Your task to perform on an android device: Show me popular videos on Youtube Image 0: 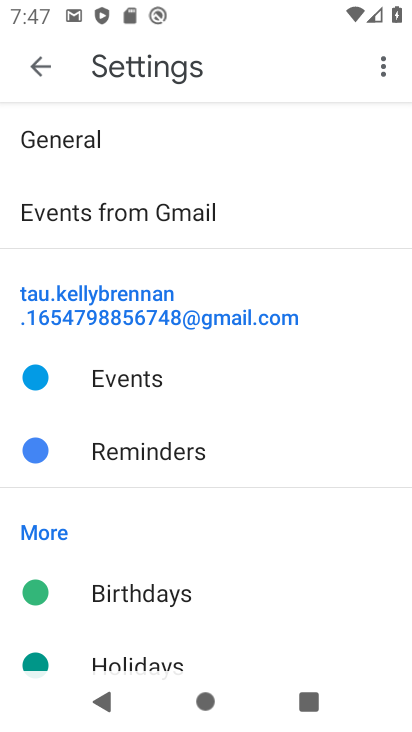
Step 0: press home button
Your task to perform on an android device: Show me popular videos on Youtube Image 1: 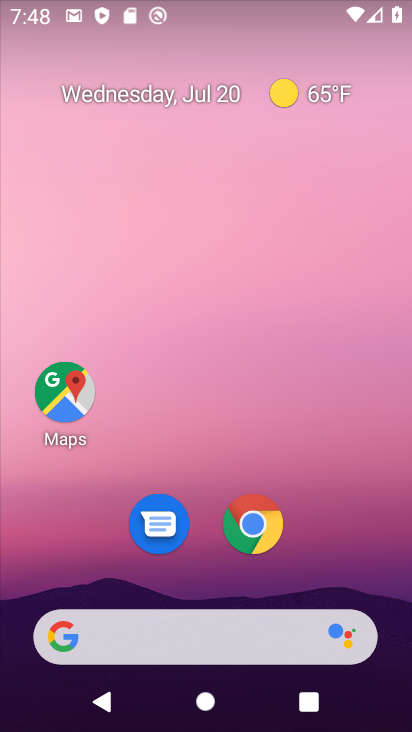
Step 1: drag from (309, 564) to (285, 79)
Your task to perform on an android device: Show me popular videos on Youtube Image 2: 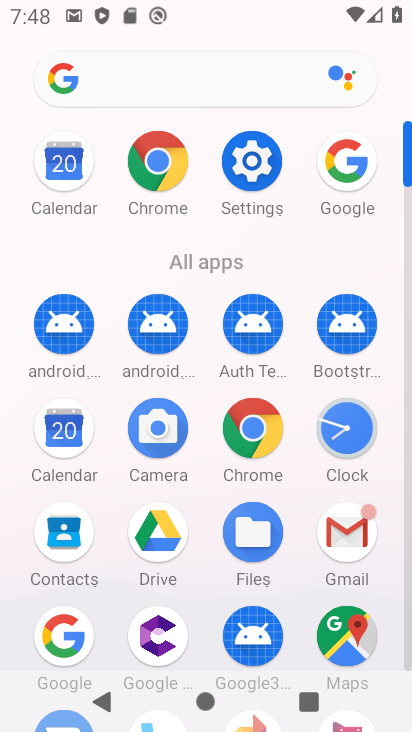
Step 2: drag from (216, 568) to (237, 126)
Your task to perform on an android device: Show me popular videos on Youtube Image 3: 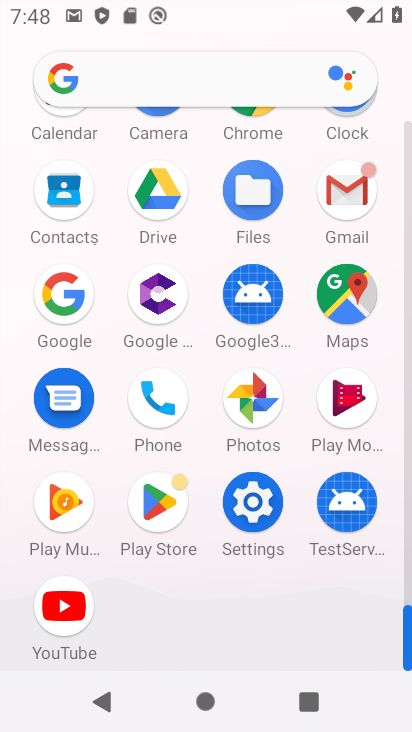
Step 3: click (71, 605)
Your task to perform on an android device: Show me popular videos on Youtube Image 4: 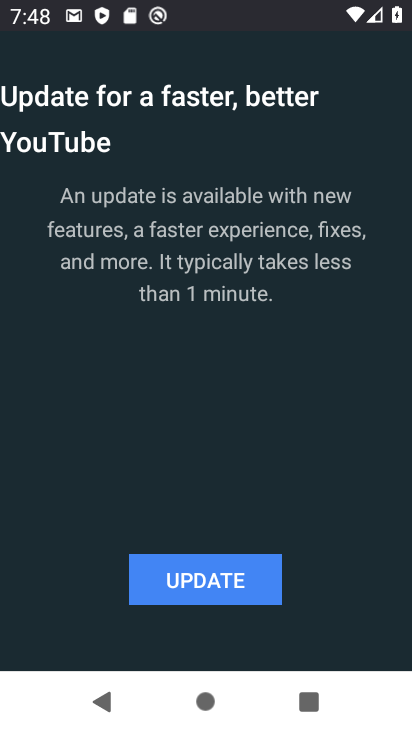
Step 4: click (261, 592)
Your task to perform on an android device: Show me popular videos on Youtube Image 5: 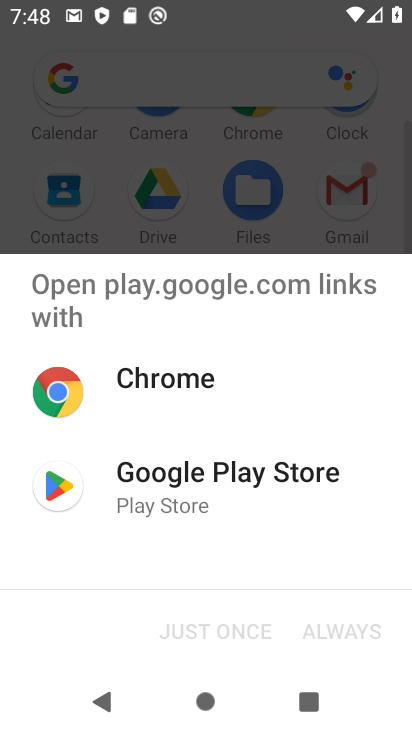
Step 5: click (132, 487)
Your task to perform on an android device: Show me popular videos on Youtube Image 6: 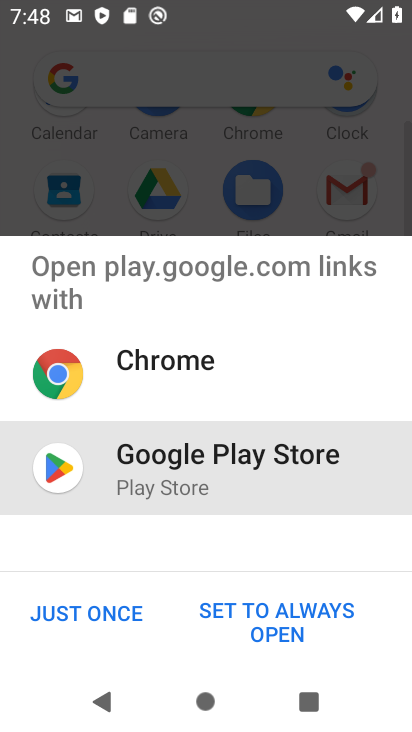
Step 6: click (84, 605)
Your task to perform on an android device: Show me popular videos on Youtube Image 7: 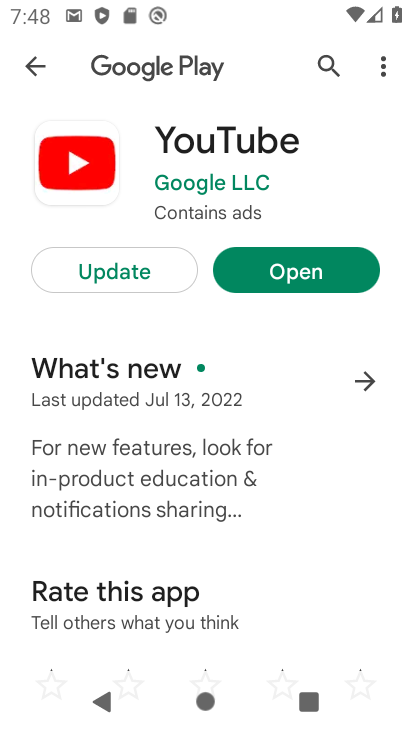
Step 7: click (178, 278)
Your task to perform on an android device: Show me popular videos on Youtube Image 8: 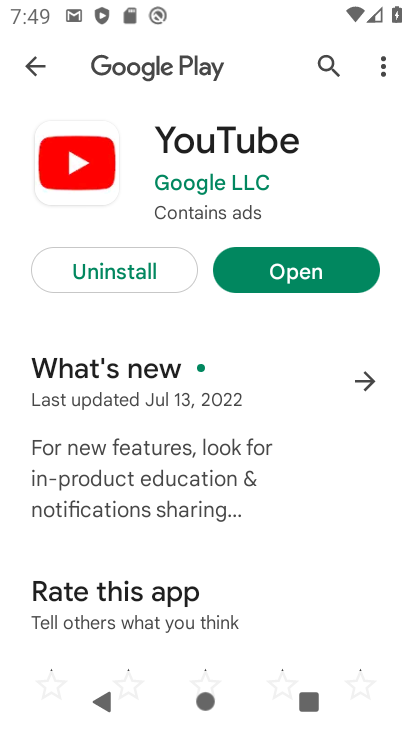
Step 8: click (301, 274)
Your task to perform on an android device: Show me popular videos on Youtube Image 9: 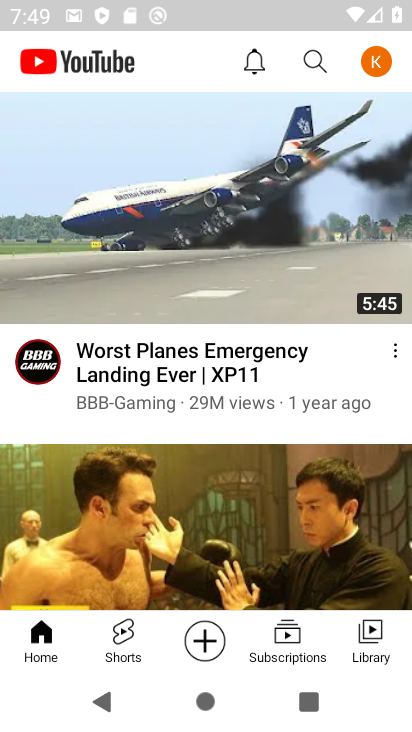
Step 9: click (305, 60)
Your task to perform on an android device: Show me popular videos on Youtube Image 10: 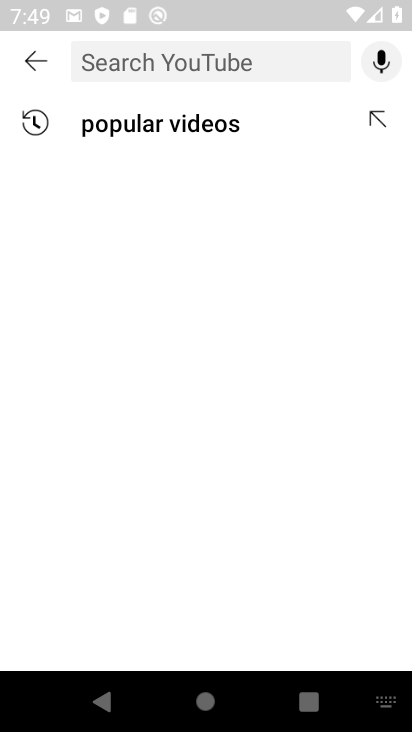
Step 10: click (212, 121)
Your task to perform on an android device: Show me popular videos on Youtube Image 11: 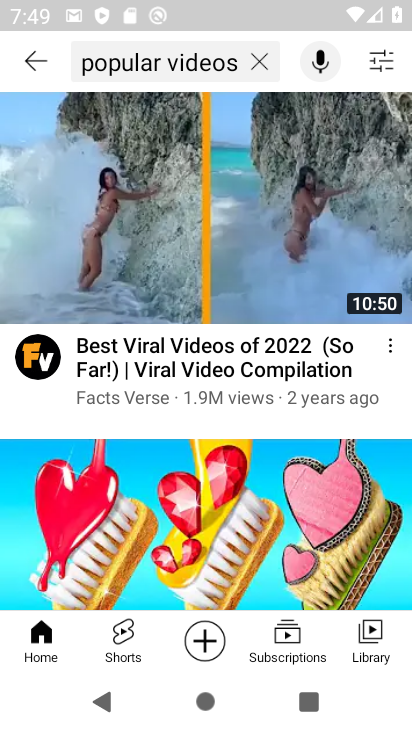
Step 11: click (110, 264)
Your task to perform on an android device: Show me popular videos on Youtube Image 12: 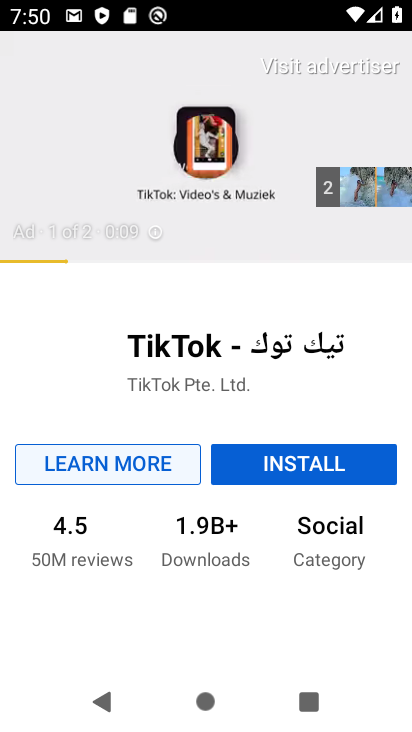
Step 12: task complete